Your task to perform on an android device: Go to privacy settings Image 0: 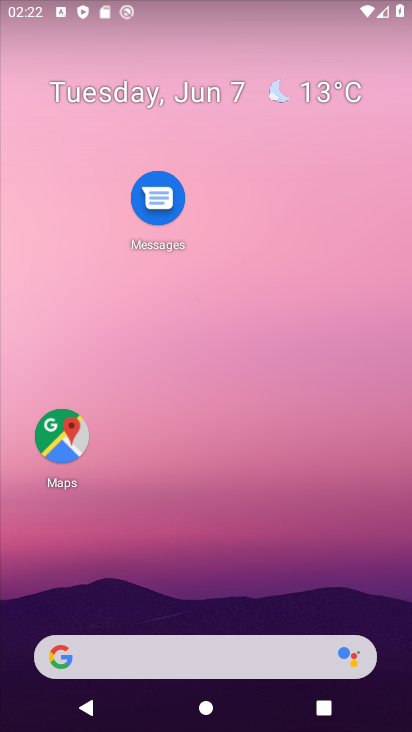
Step 0: drag from (210, 605) to (194, 304)
Your task to perform on an android device: Go to privacy settings Image 1: 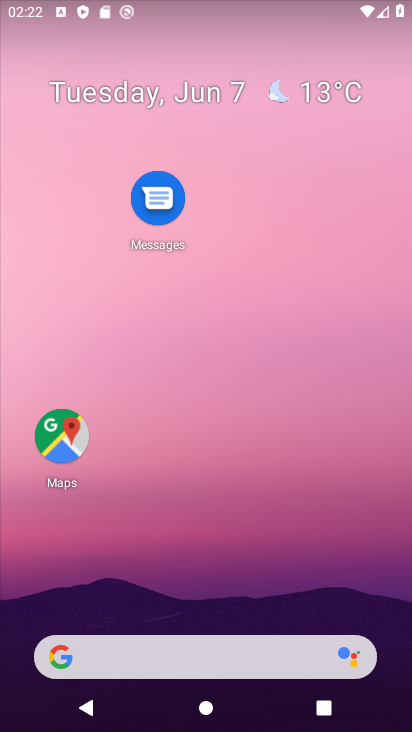
Step 1: drag from (225, 600) to (140, 42)
Your task to perform on an android device: Go to privacy settings Image 2: 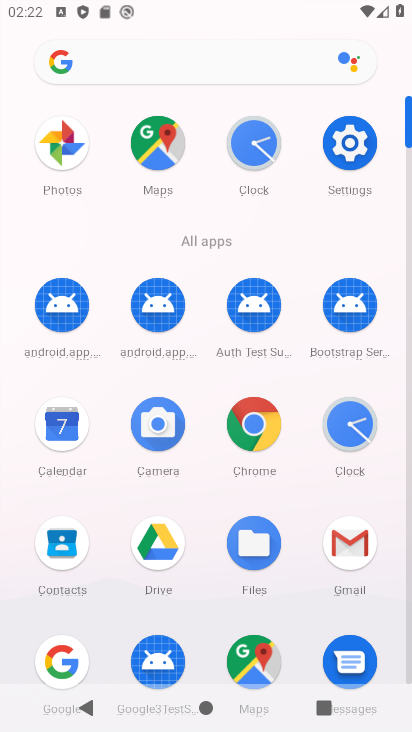
Step 2: click (356, 144)
Your task to perform on an android device: Go to privacy settings Image 3: 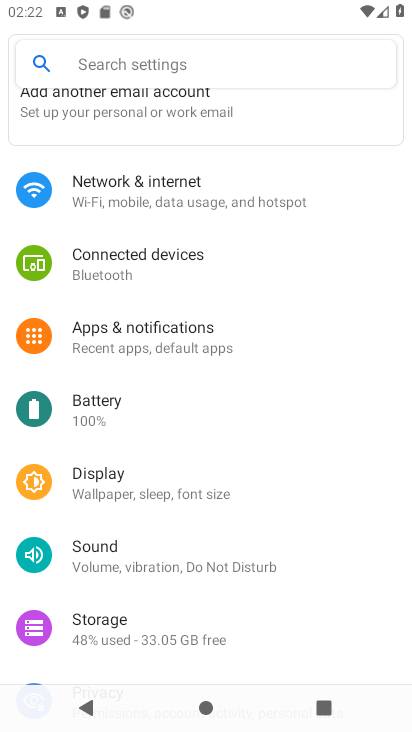
Step 3: drag from (179, 577) to (185, 370)
Your task to perform on an android device: Go to privacy settings Image 4: 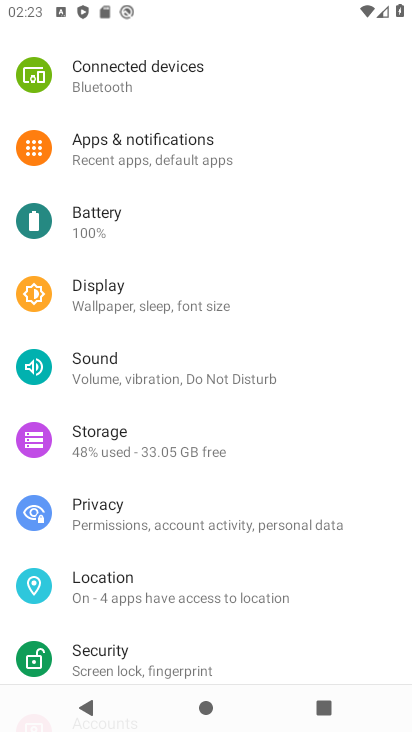
Step 4: click (120, 517)
Your task to perform on an android device: Go to privacy settings Image 5: 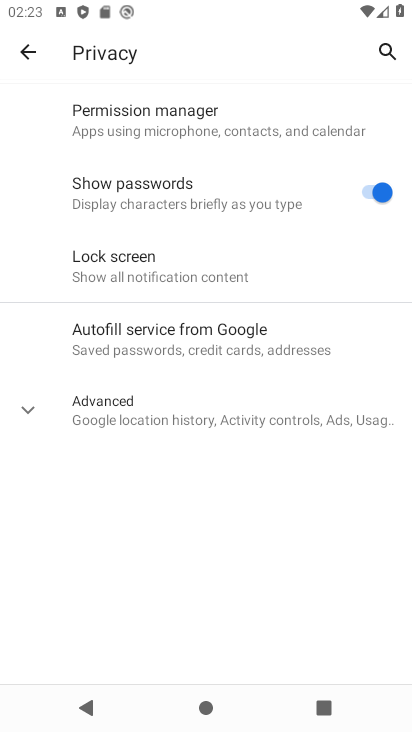
Step 5: task complete